Your task to perform on an android device: toggle javascript in the chrome app Image 0: 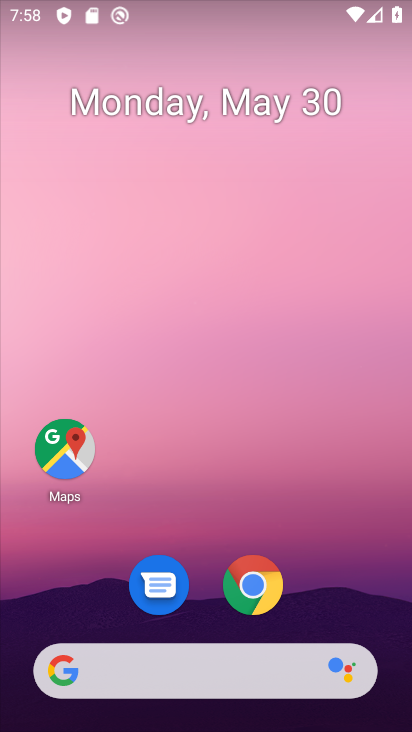
Step 0: click (236, 577)
Your task to perform on an android device: toggle javascript in the chrome app Image 1: 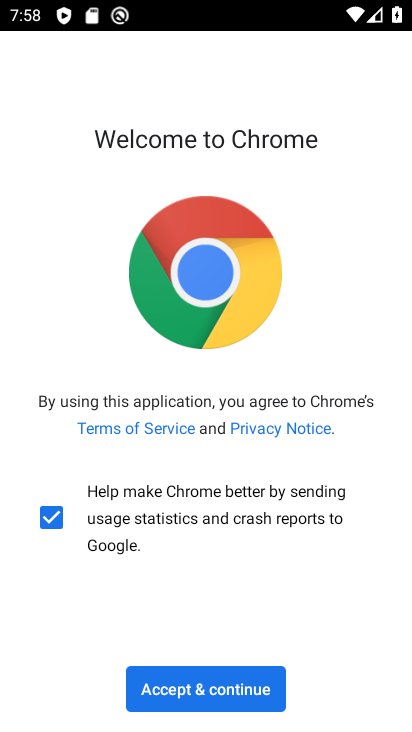
Step 1: click (223, 685)
Your task to perform on an android device: toggle javascript in the chrome app Image 2: 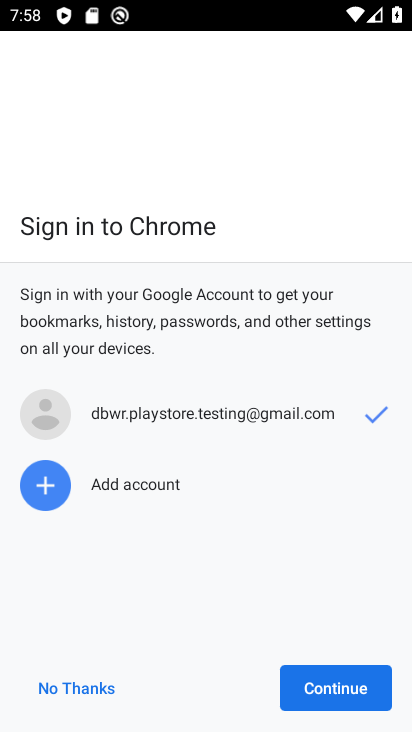
Step 2: click (337, 682)
Your task to perform on an android device: toggle javascript in the chrome app Image 3: 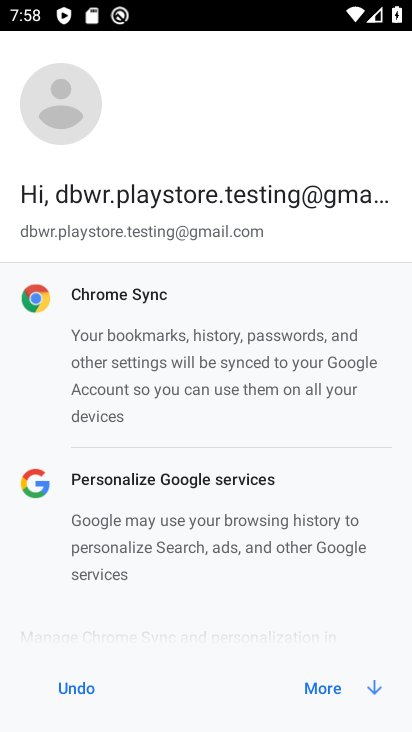
Step 3: click (337, 681)
Your task to perform on an android device: toggle javascript in the chrome app Image 4: 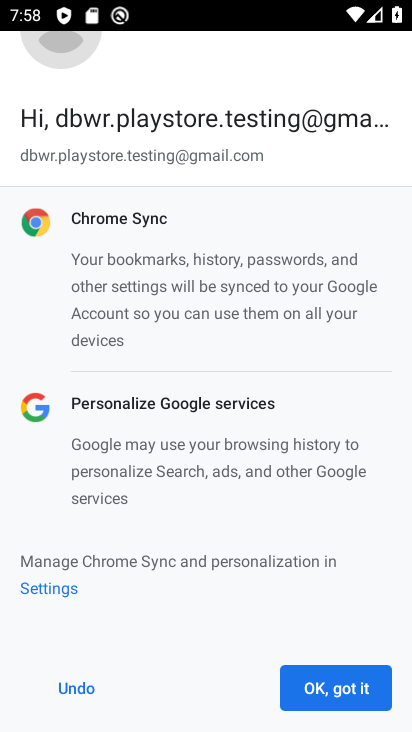
Step 4: click (337, 681)
Your task to perform on an android device: toggle javascript in the chrome app Image 5: 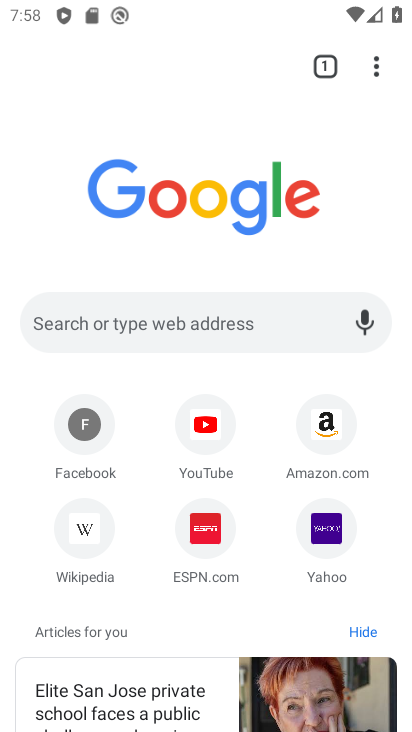
Step 5: click (370, 70)
Your task to perform on an android device: toggle javascript in the chrome app Image 6: 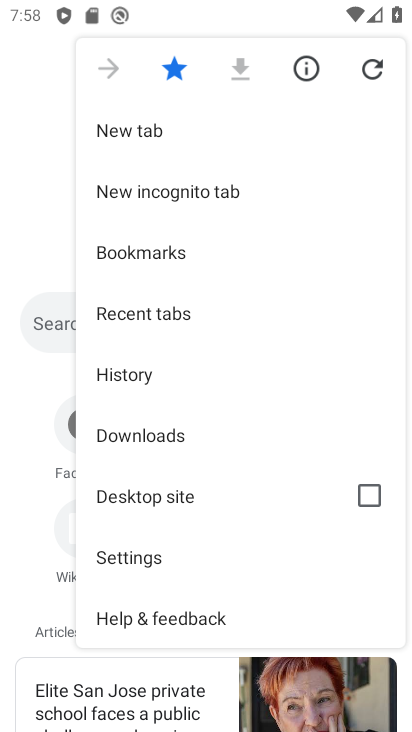
Step 6: click (202, 552)
Your task to perform on an android device: toggle javascript in the chrome app Image 7: 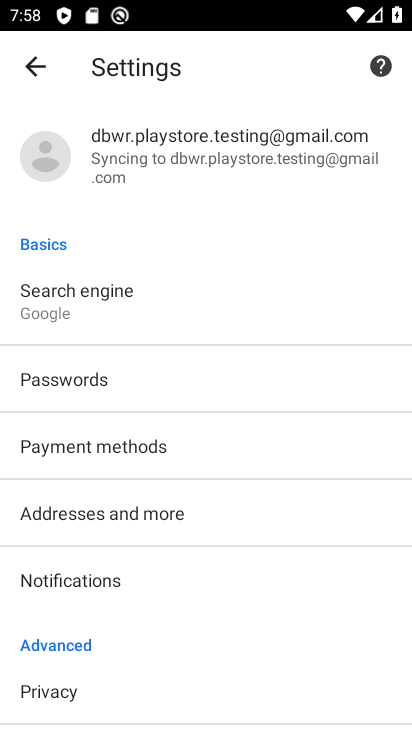
Step 7: drag from (256, 540) to (262, 211)
Your task to perform on an android device: toggle javascript in the chrome app Image 8: 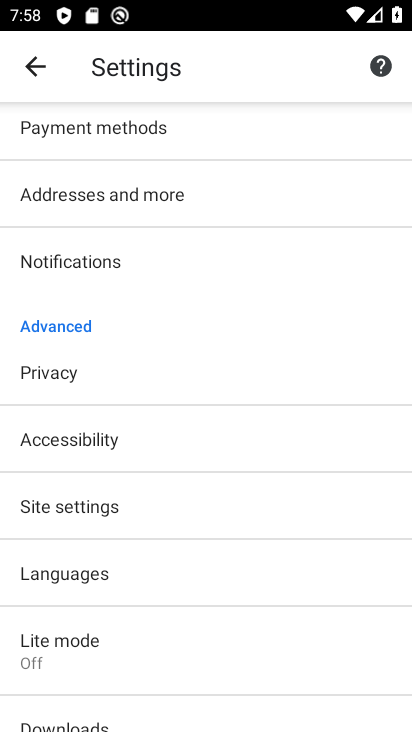
Step 8: click (222, 506)
Your task to perform on an android device: toggle javascript in the chrome app Image 9: 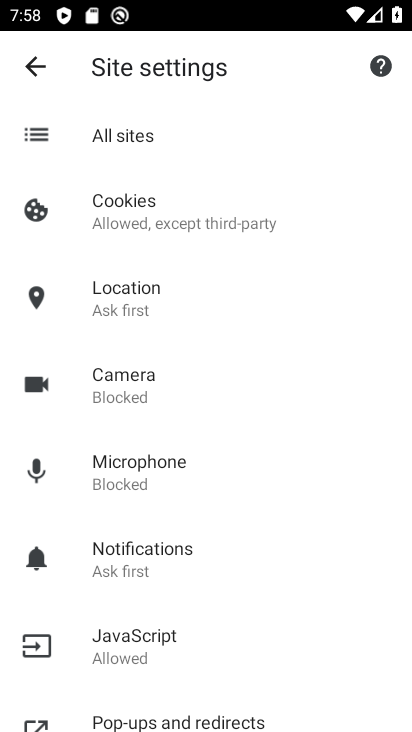
Step 9: click (170, 635)
Your task to perform on an android device: toggle javascript in the chrome app Image 10: 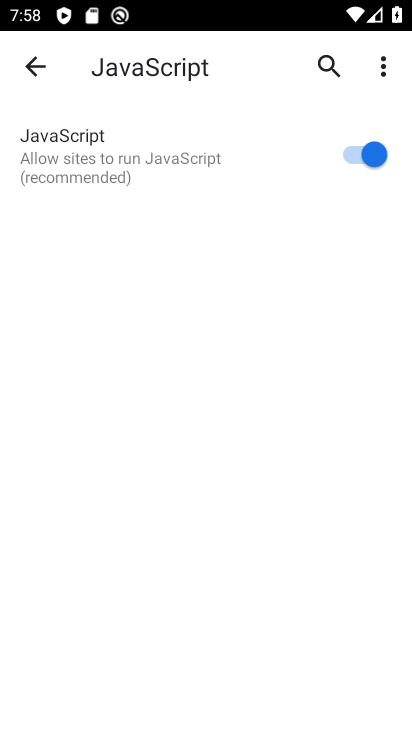
Step 10: click (370, 143)
Your task to perform on an android device: toggle javascript in the chrome app Image 11: 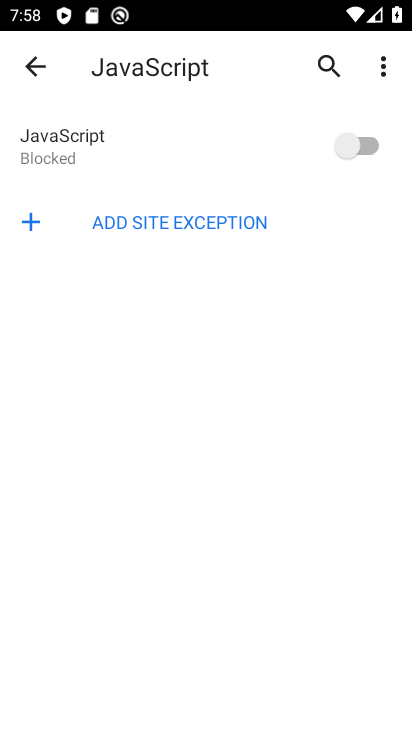
Step 11: task complete